Your task to perform on an android device: Open Reddit.com Image 0: 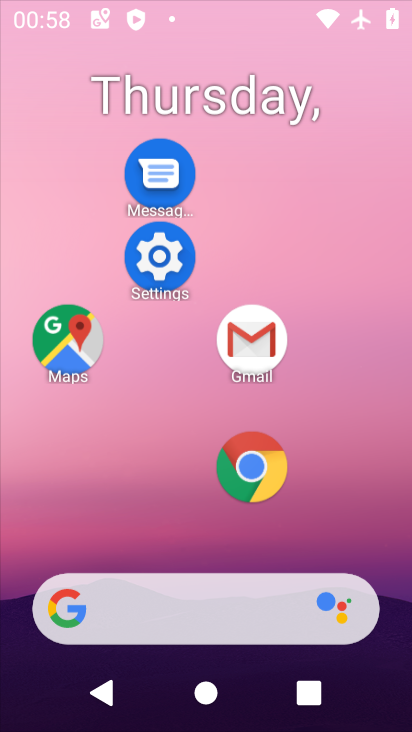
Step 0: click (191, 172)
Your task to perform on an android device: Open Reddit.com Image 1: 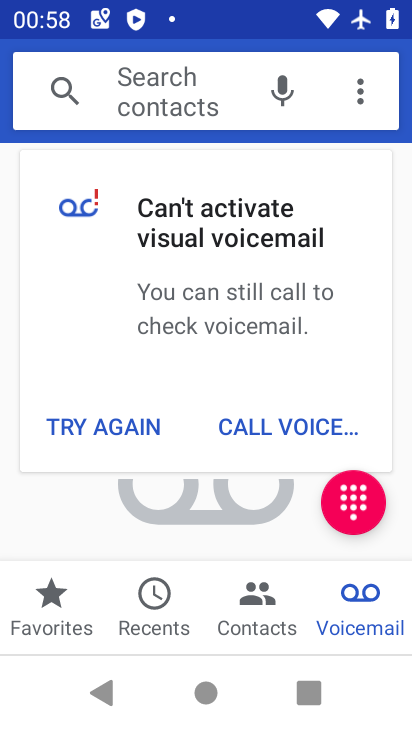
Step 1: drag from (187, 495) to (180, 98)
Your task to perform on an android device: Open Reddit.com Image 2: 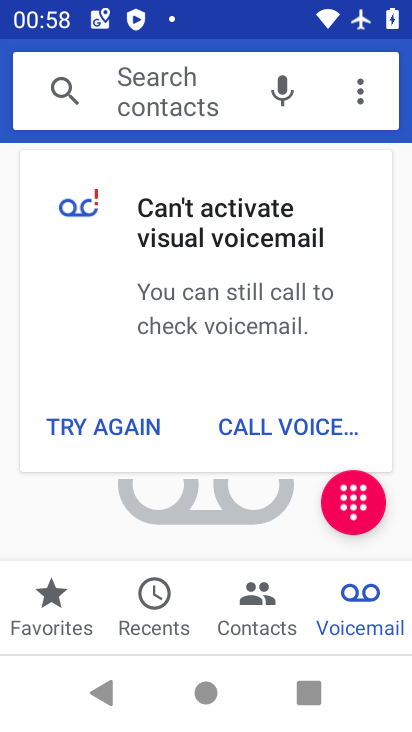
Step 2: press home button
Your task to perform on an android device: Open Reddit.com Image 3: 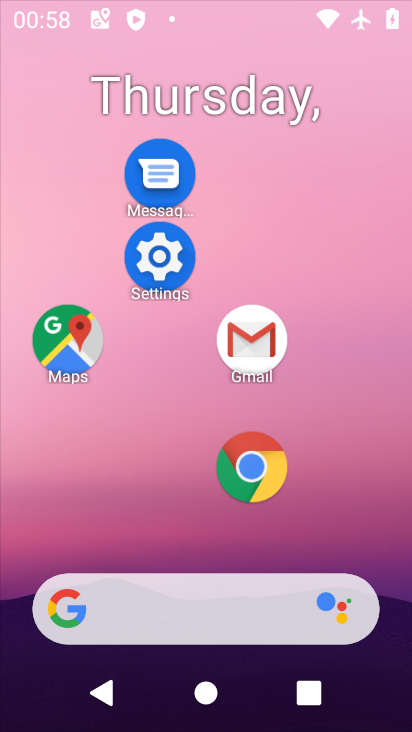
Step 3: drag from (204, 536) to (224, 158)
Your task to perform on an android device: Open Reddit.com Image 4: 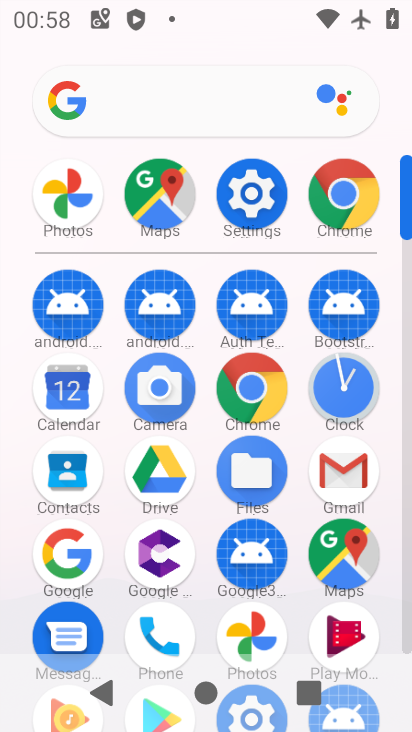
Step 4: click (168, 118)
Your task to perform on an android device: Open Reddit.com Image 5: 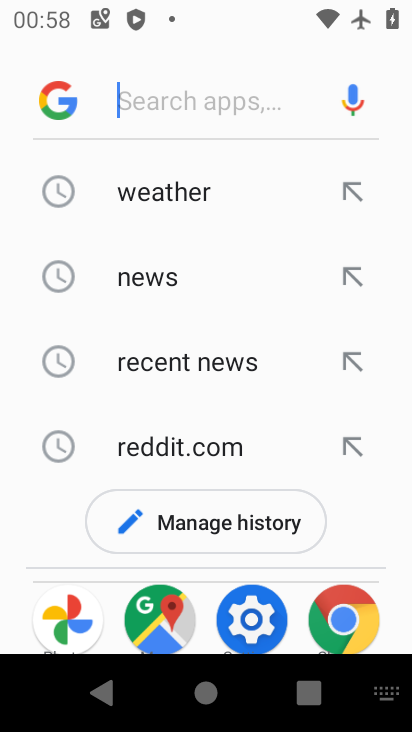
Step 5: click (160, 451)
Your task to perform on an android device: Open Reddit.com Image 6: 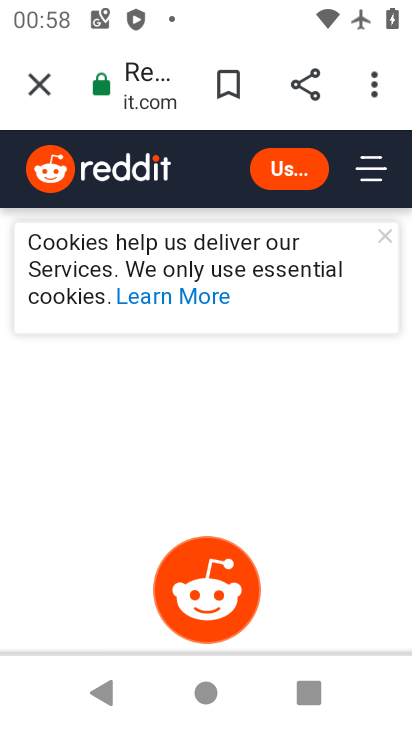
Step 6: task complete